Your task to perform on an android device: Check the news Image 0: 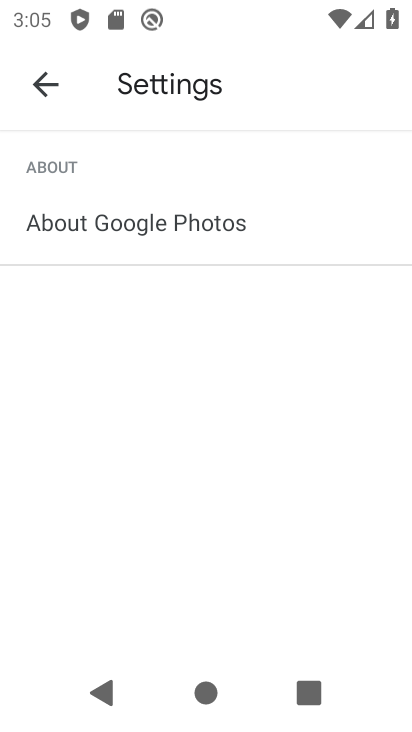
Step 0: press home button
Your task to perform on an android device: Check the news Image 1: 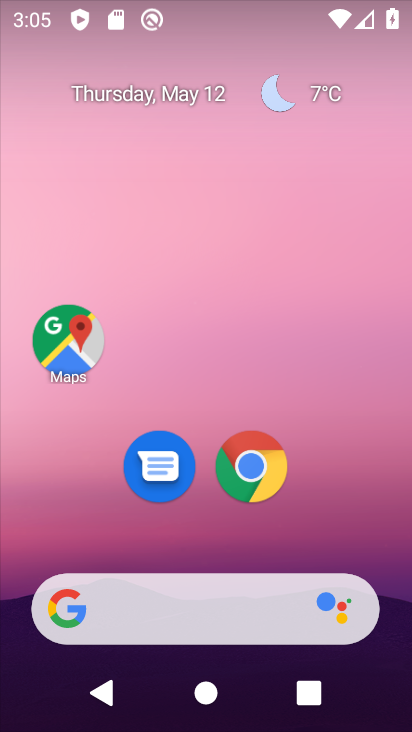
Step 1: drag from (344, 693) to (314, 728)
Your task to perform on an android device: Check the news Image 2: 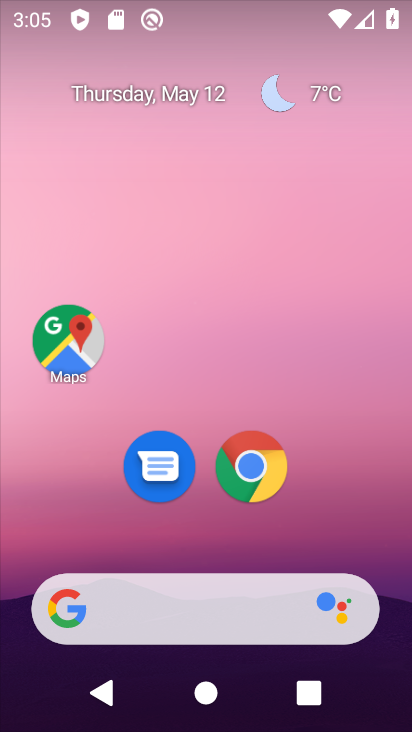
Step 2: click (253, 466)
Your task to perform on an android device: Check the news Image 3: 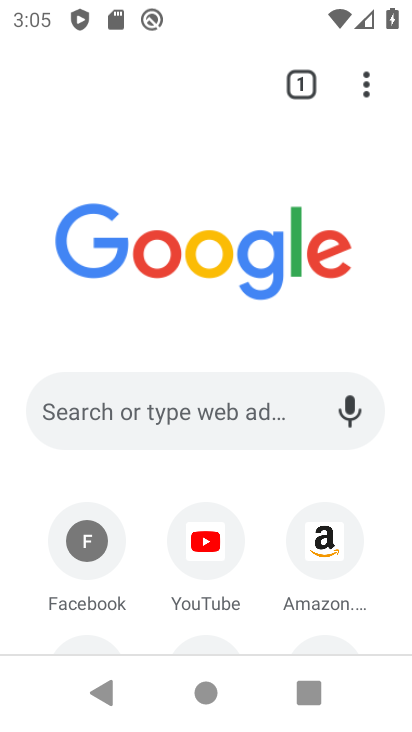
Step 3: click (249, 425)
Your task to perform on an android device: Check the news Image 4: 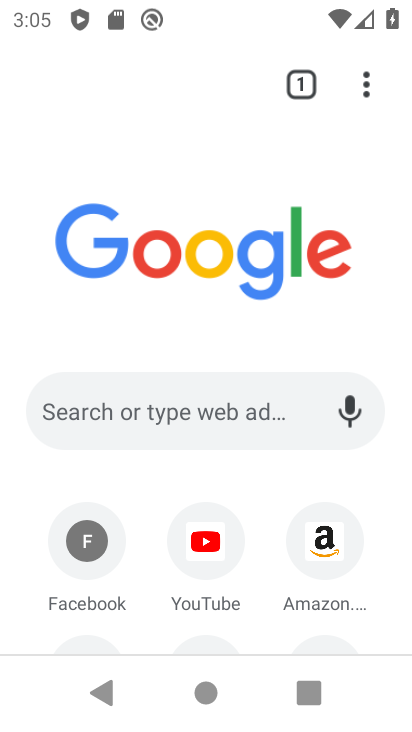
Step 4: click (249, 425)
Your task to perform on an android device: Check the news Image 5: 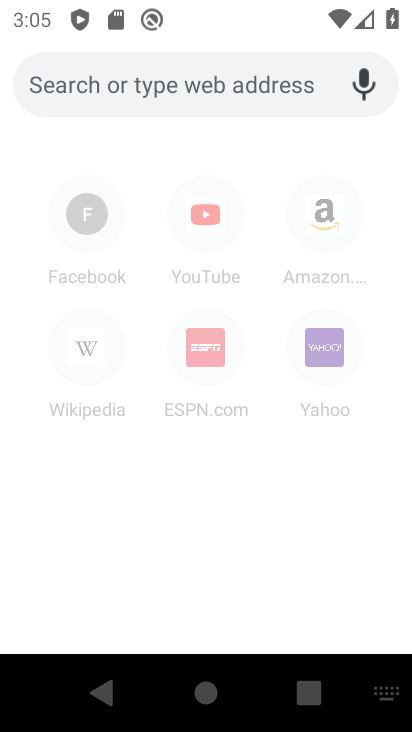
Step 5: type "news"
Your task to perform on an android device: Check the news Image 6: 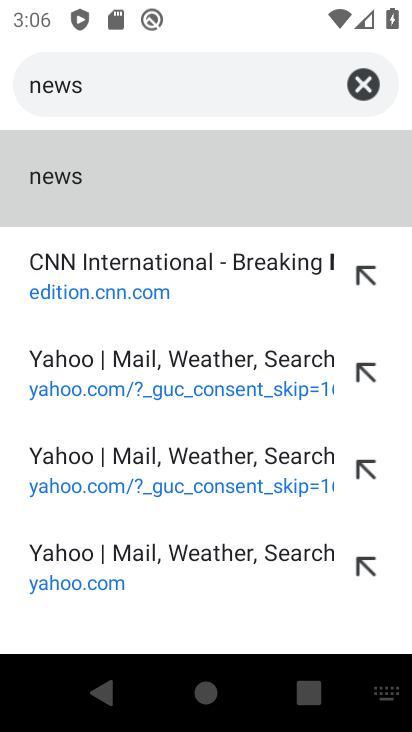
Step 6: click (87, 159)
Your task to perform on an android device: Check the news Image 7: 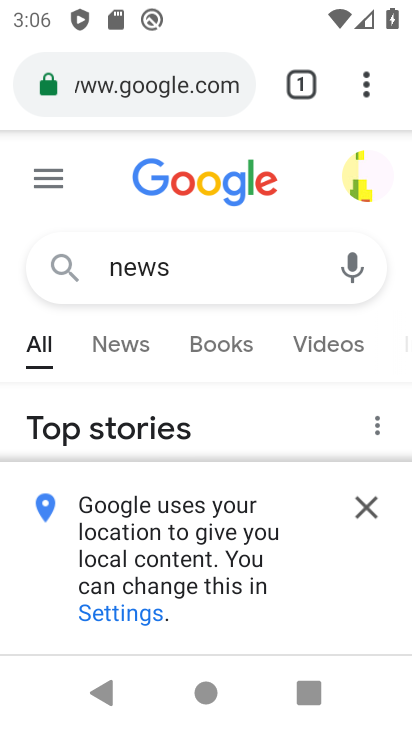
Step 7: task complete